Your task to perform on an android device: snooze an email in the gmail app Image 0: 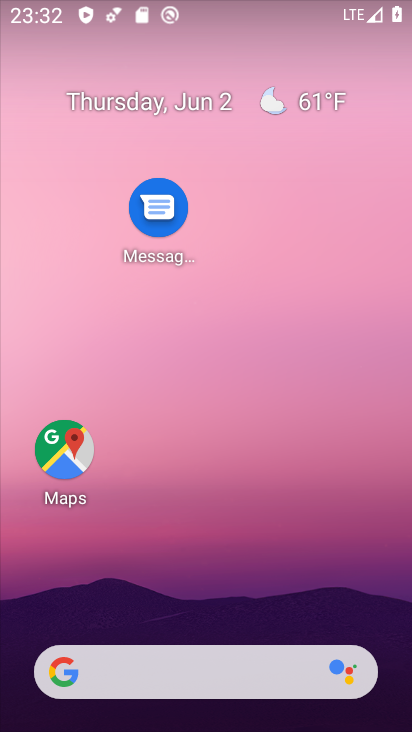
Step 0: drag from (232, 633) to (269, 21)
Your task to perform on an android device: snooze an email in the gmail app Image 1: 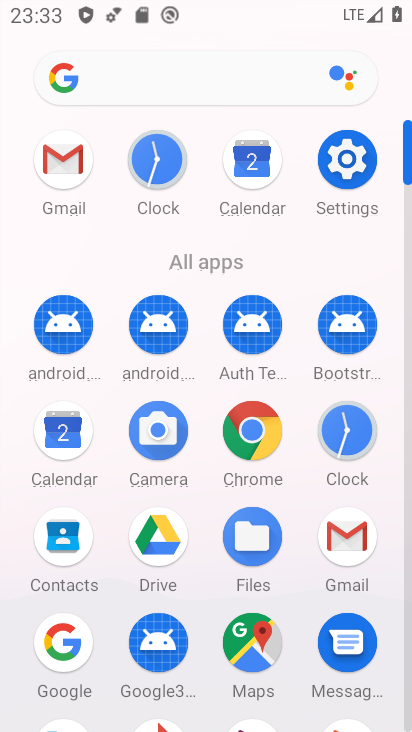
Step 1: click (335, 553)
Your task to perform on an android device: snooze an email in the gmail app Image 2: 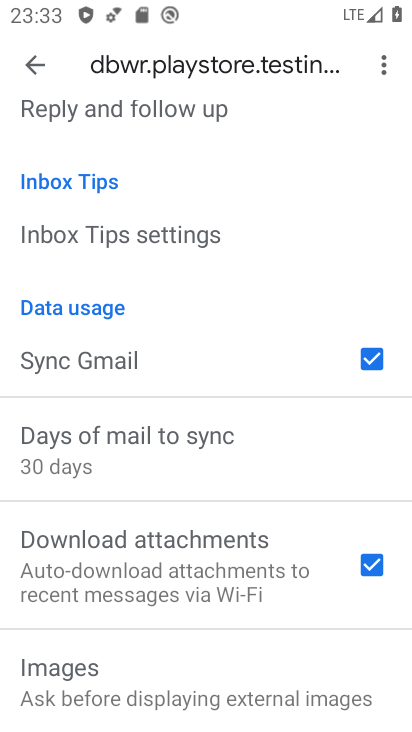
Step 2: click (20, 65)
Your task to perform on an android device: snooze an email in the gmail app Image 3: 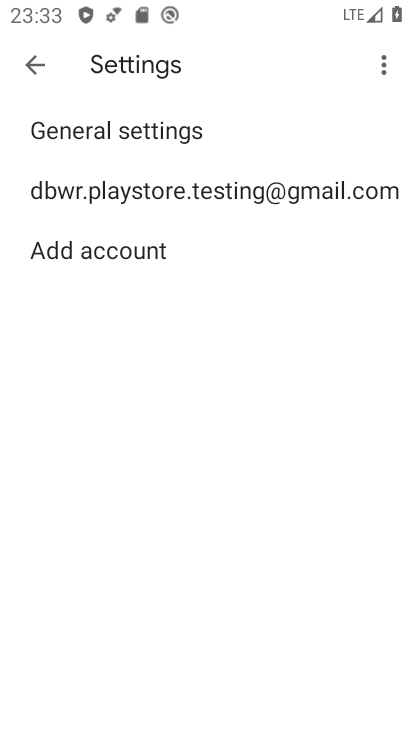
Step 3: click (32, 36)
Your task to perform on an android device: snooze an email in the gmail app Image 4: 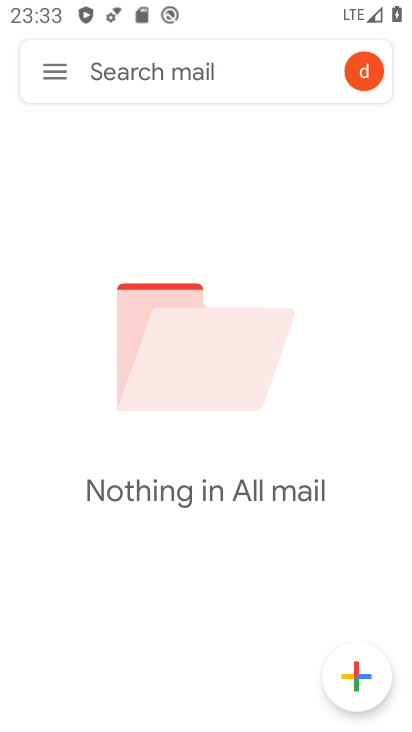
Step 4: task complete